Your task to perform on an android device: manage bookmarks in the chrome app Image 0: 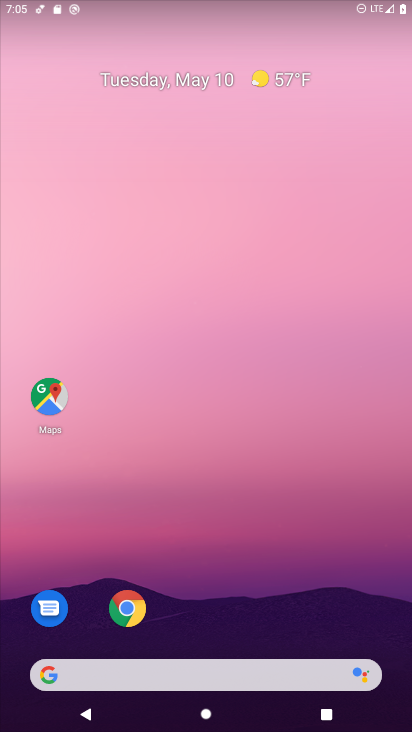
Step 0: drag from (321, 595) to (233, 120)
Your task to perform on an android device: manage bookmarks in the chrome app Image 1: 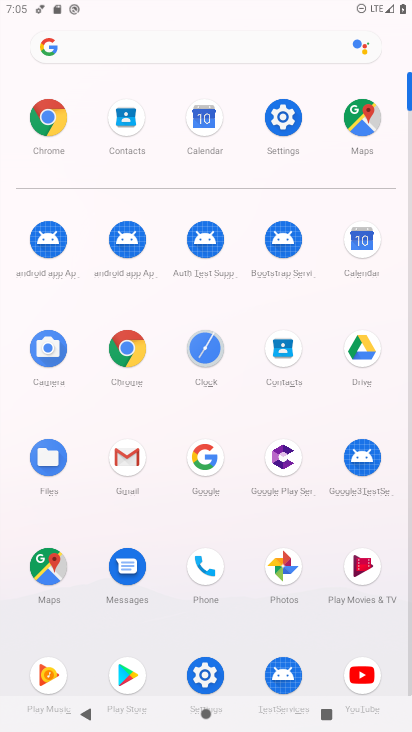
Step 1: click (45, 99)
Your task to perform on an android device: manage bookmarks in the chrome app Image 2: 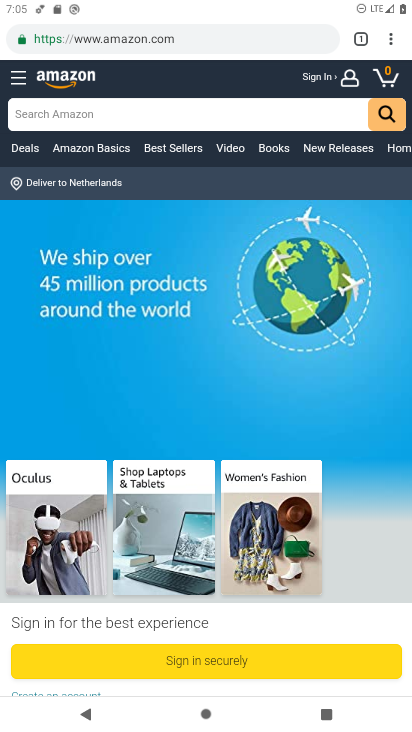
Step 2: task complete